Your task to perform on an android device: stop showing notifications on the lock screen Image 0: 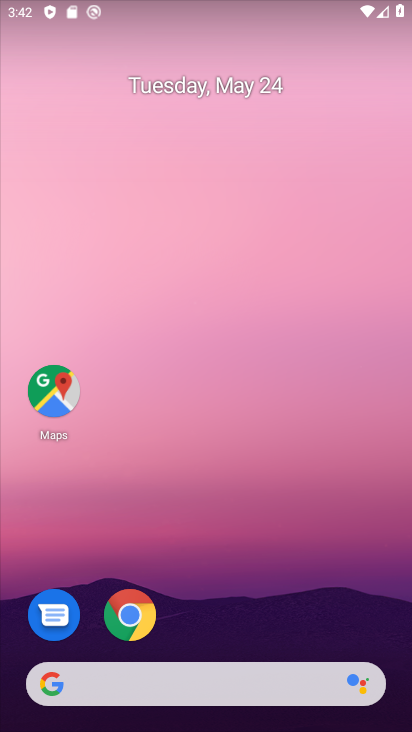
Step 0: drag from (241, 565) to (183, 8)
Your task to perform on an android device: stop showing notifications on the lock screen Image 1: 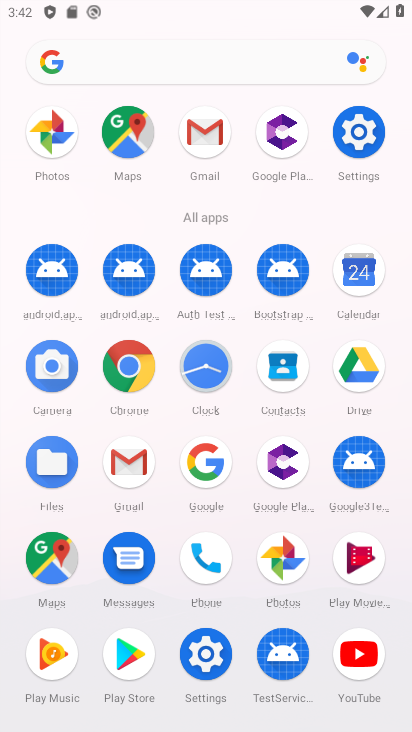
Step 1: drag from (2, 461) to (8, 209)
Your task to perform on an android device: stop showing notifications on the lock screen Image 2: 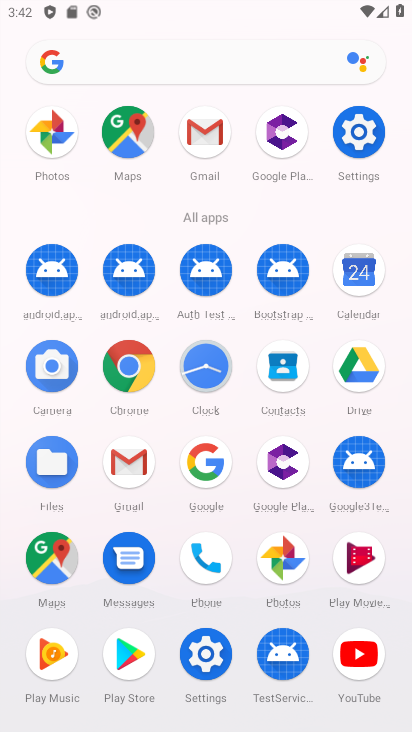
Step 2: click (205, 652)
Your task to perform on an android device: stop showing notifications on the lock screen Image 3: 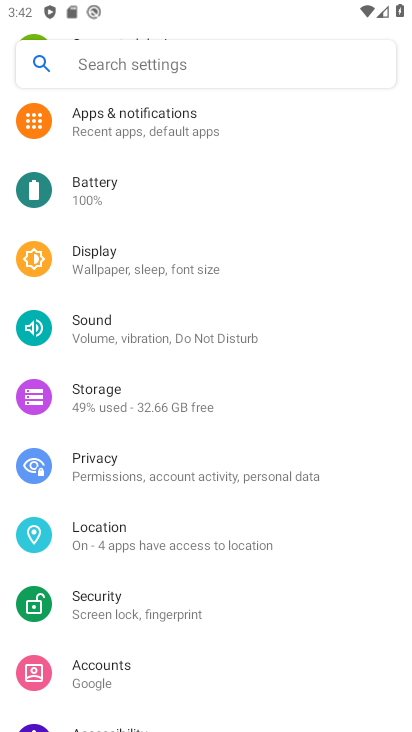
Step 3: click (167, 129)
Your task to perform on an android device: stop showing notifications on the lock screen Image 4: 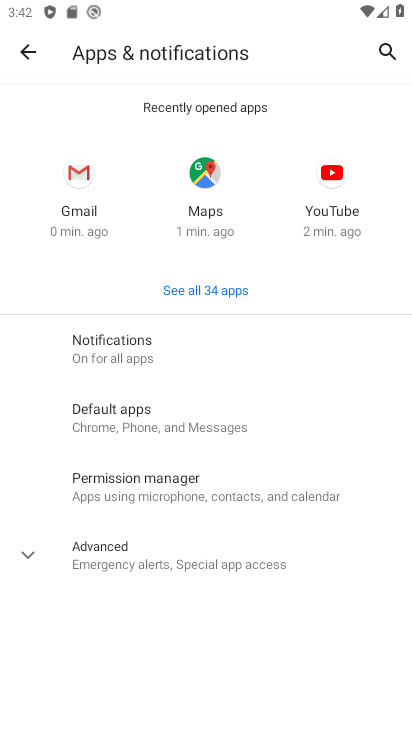
Step 4: click (109, 352)
Your task to perform on an android device: stop showing notifications on the lock screen Image 5: 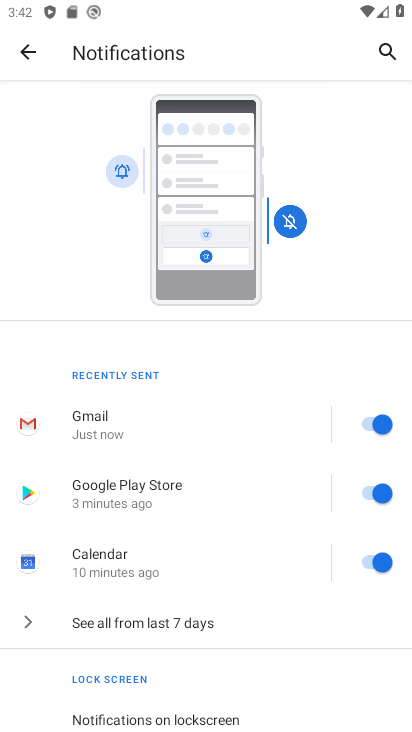
Step 5: drag from (204, 610) to (270, 180)
Your task to perform on an android device: stop showing notifications on the lock screen Image 6: 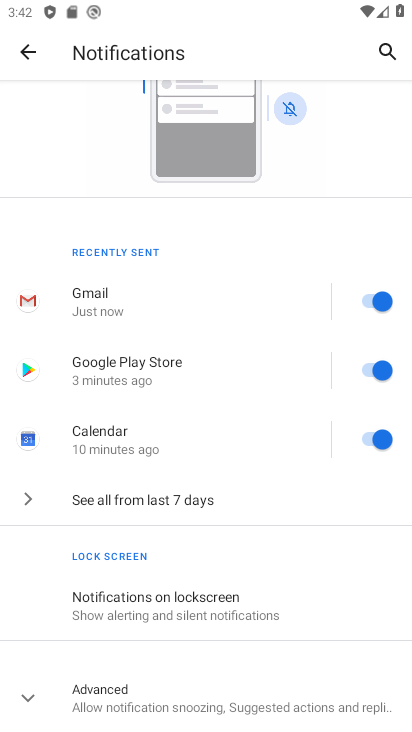
Step 6: click (95, 710)
Your task to perform on an android device: stop showing notifications on the lock screen Image 7: 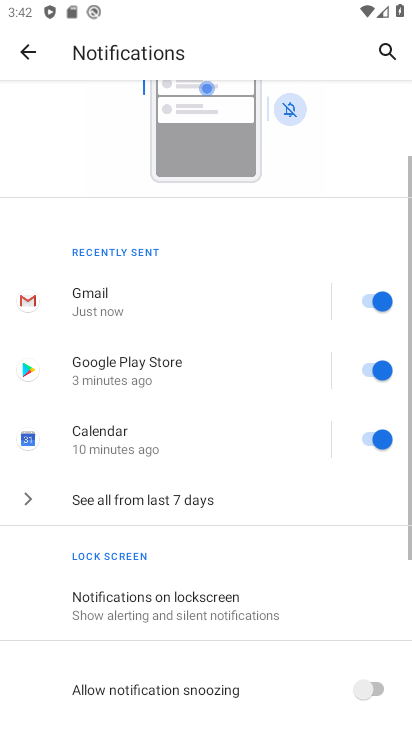
Step 7: drag from (214, 621) to (282, 175)
Your task to perform on an android device: stop showing notifications on the lock screen Image 8: 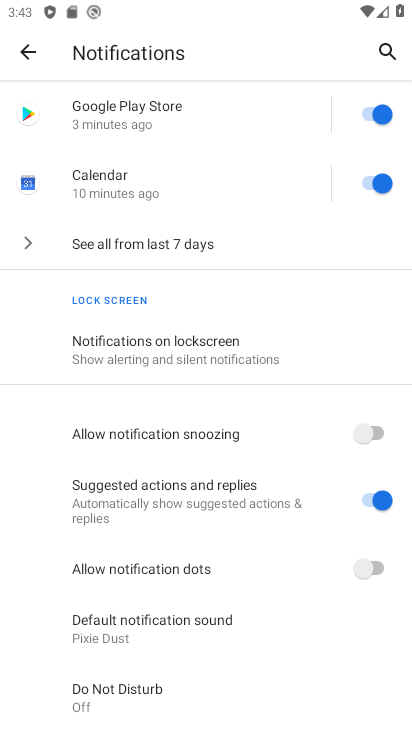
Step 8: click (237, 341)
Your task to perform on an android device: stop showing notifications on the lock screen Image 9: 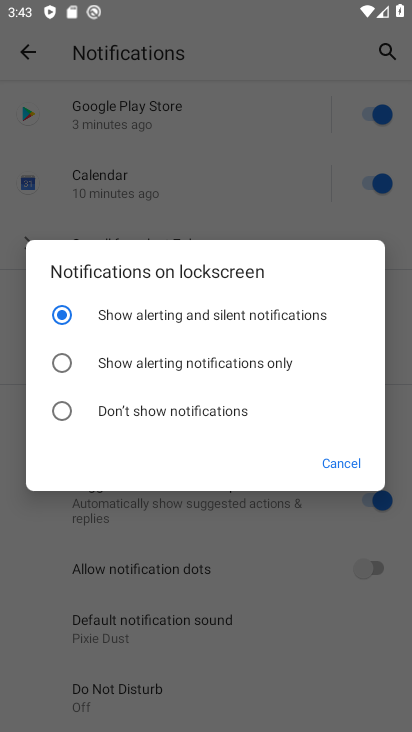
Step 9: click (167, 416)
Your task to perform on an android device: stop showing notifications on the lock screen Image 10: 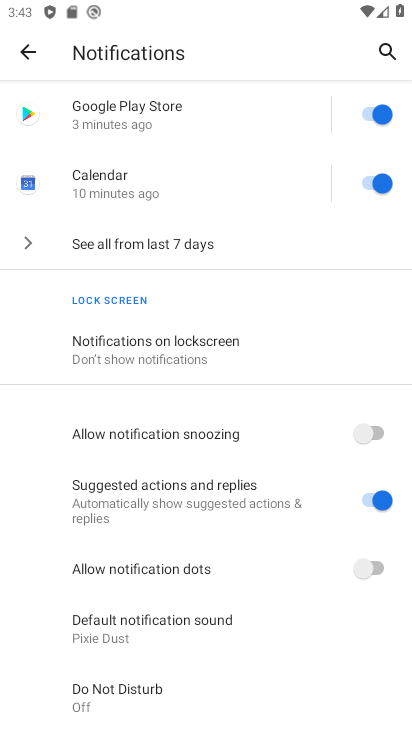
Step 10: task complete